Your task to perform on an android device: Empty the shopping cart on newegg.com. Image 0: 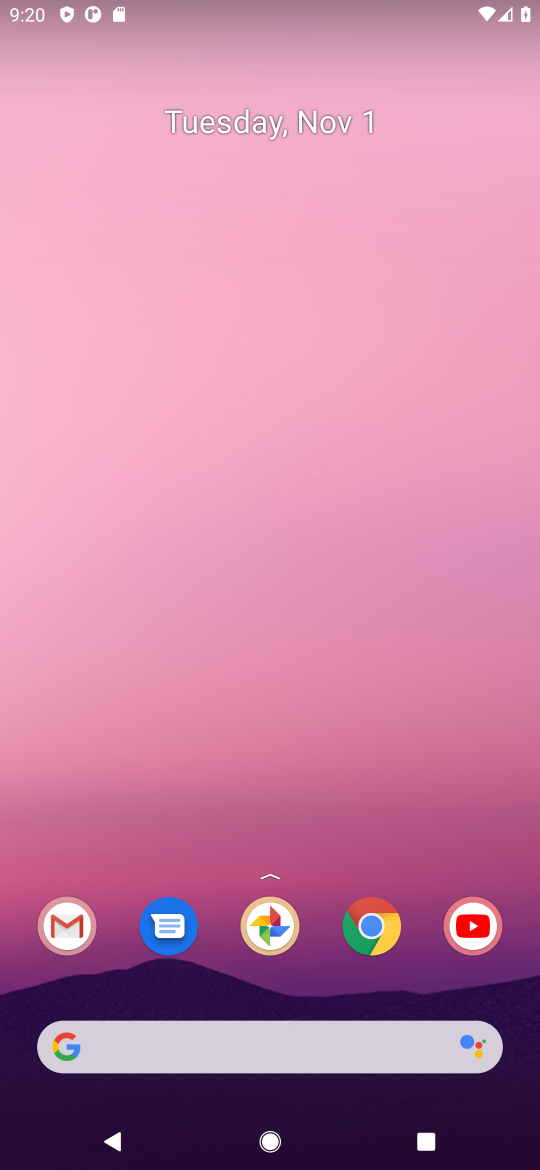
Step 0: click (378, 922)
Your task to perform on an android device: Empty the shopping cart on newegg.com. Image 1: 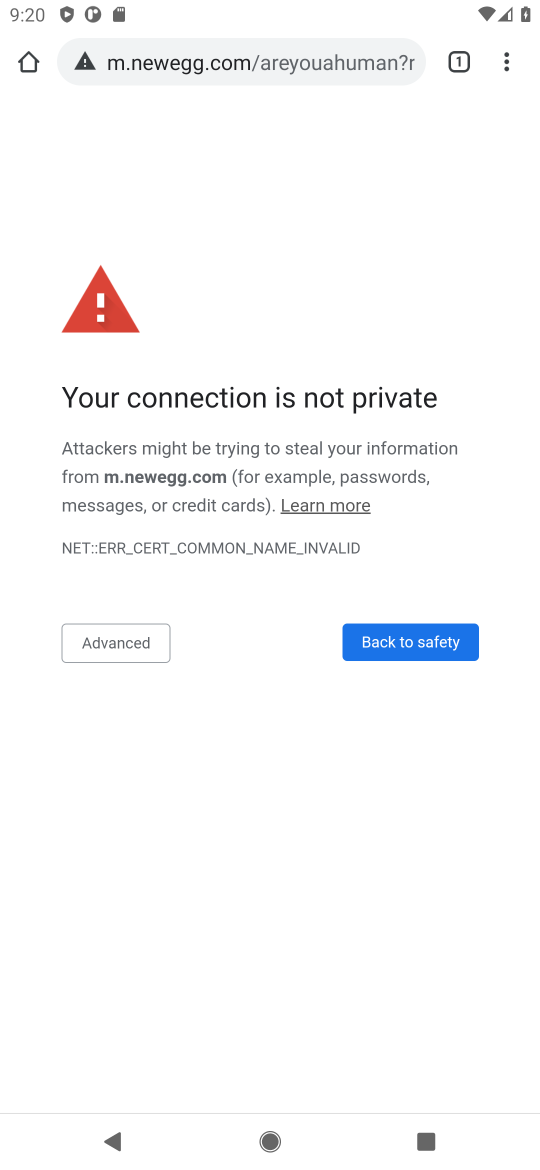
Step 1: click (149, 71)
Your task to perform on an android device: Empty the shopping cart on newegg.com. Image 2: 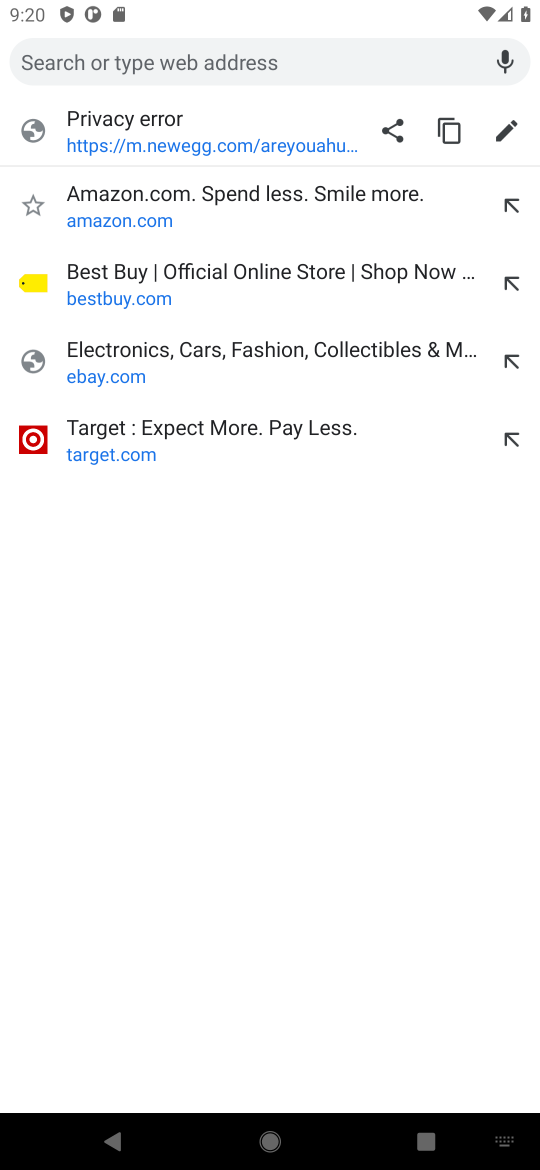
Step 2: task complete